Your task to perform on an android device: Open settings on Google Maps Image 0: 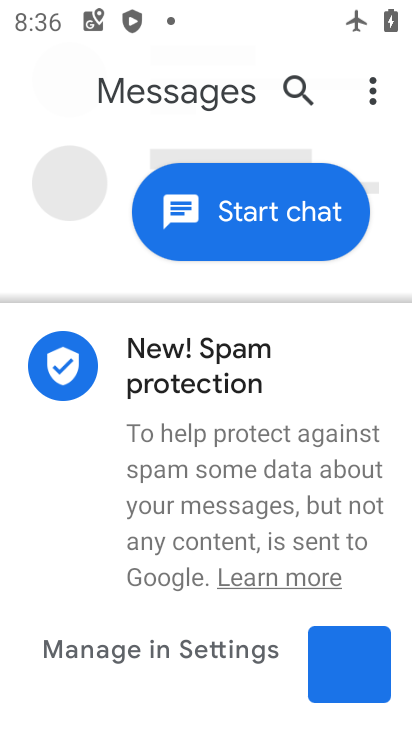
Step 0: press home button
Your task to perform on an android device: Open settings on Google Maps Image 1: 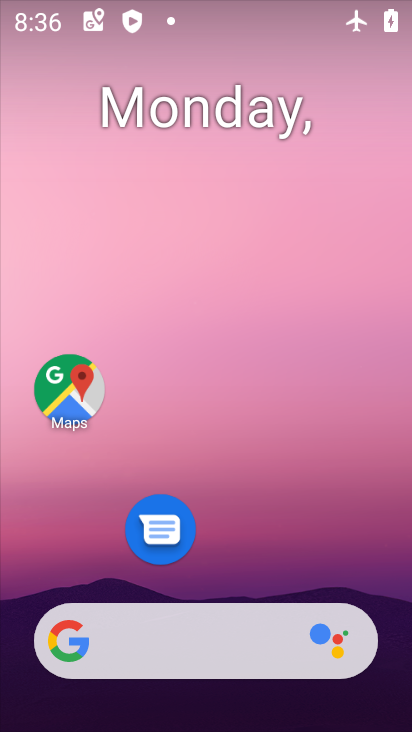
Step 1: click (64, 389)
Your task to perform on an android device: Open settings on Google Maps Image 2: 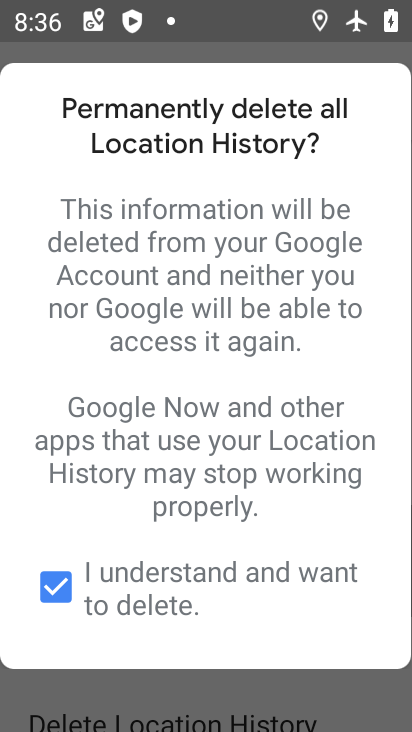
Step 2: drag from (319, 618) to (347, 323)
Your task to perform on an android device: Open settings on Google Maps Image 3: 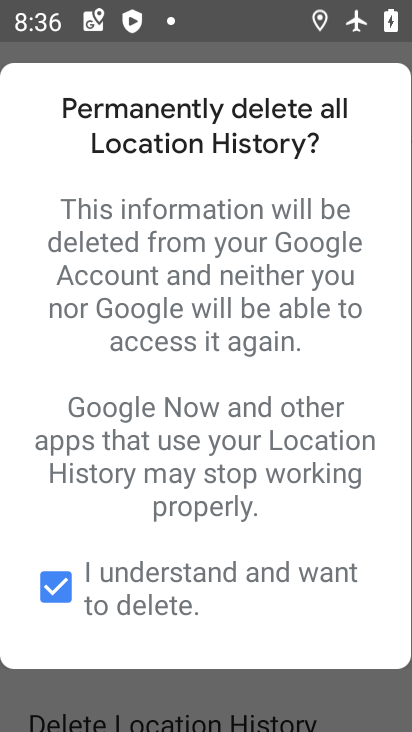
Step 3: click (104, 692)
Your task to perform on an android device: Open settings on Google Maps Image 4: 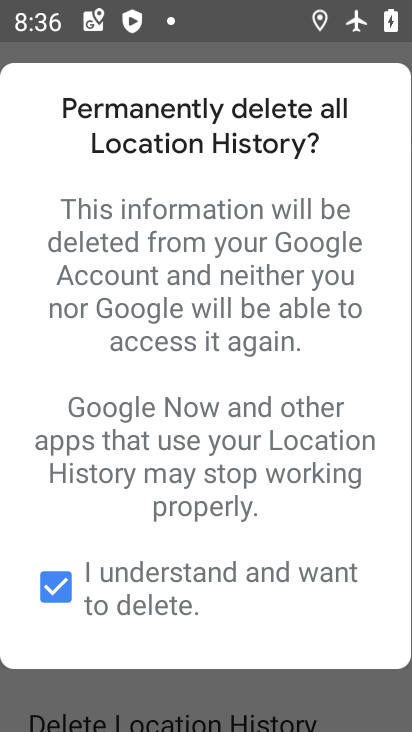
Step 4: press back button
Your task to perform on an android device: Open settings on Google Maps Image 5: 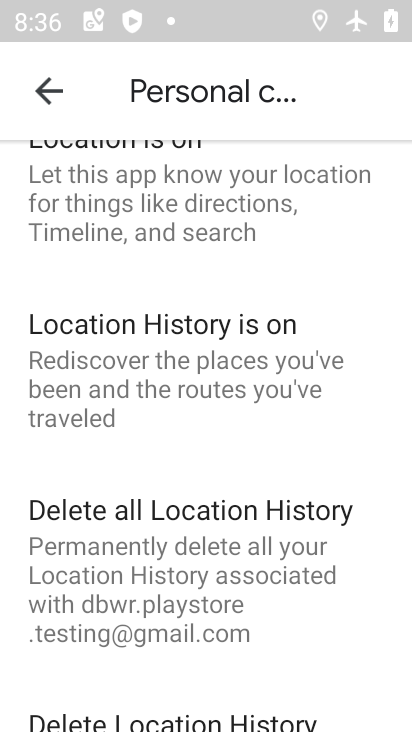
Step 5: click (57, 83)
Your task to perform on an android device: Open settings on Google Maps Image 6: 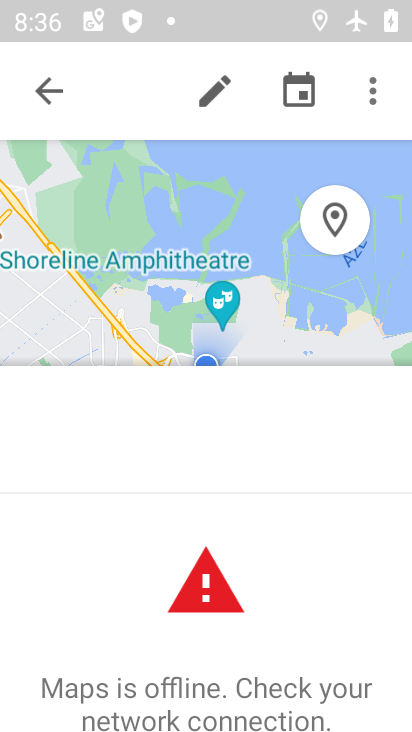
Step 6: click (365, 99)
Your task to perform on an android device: Open settings on Google Maps Image 7: 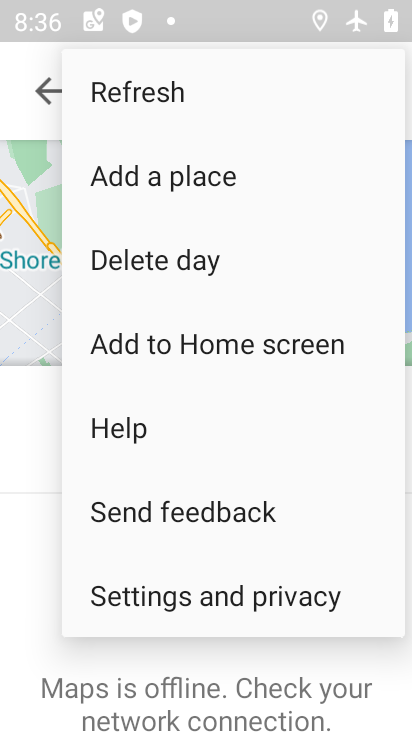
Step 7: click (217, 588)
Your task to perform on an android device: Open settings on Google Maps Image 8: 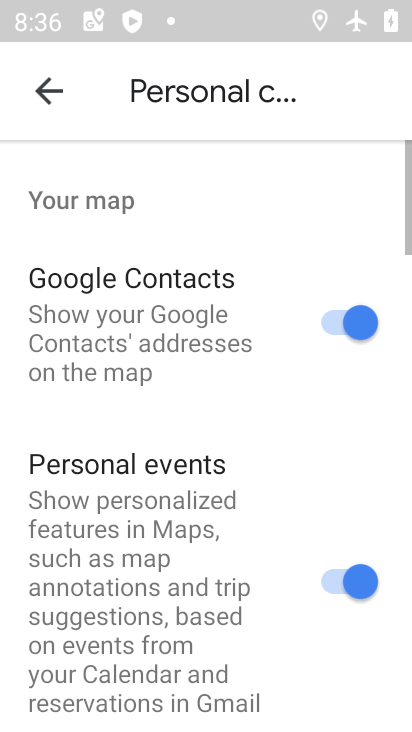
Step 8: task complete